Your task to perform on an android device: Open my contact list Image 0: 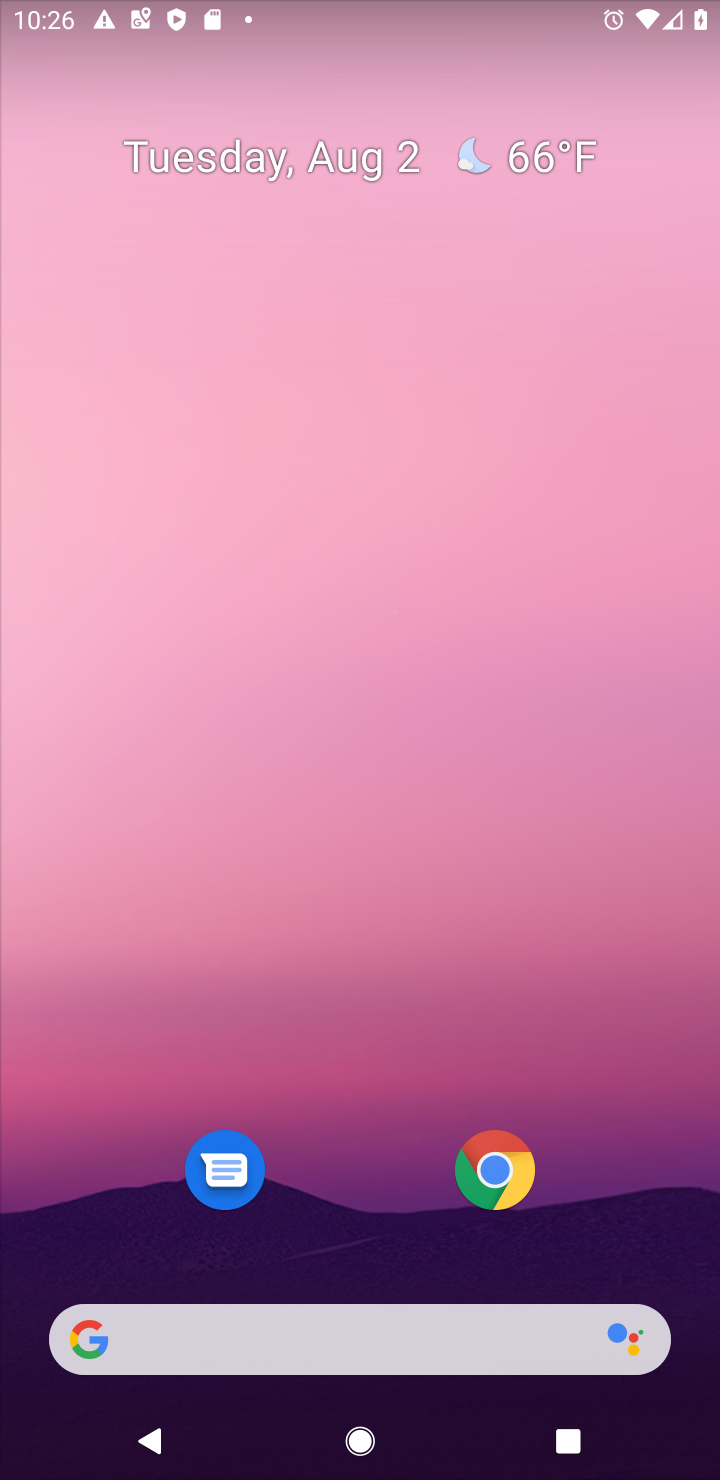
Step 0: drag from (380, 195) to (399, 25)
Your task to perform on an android device: Open my contact list Image 1: 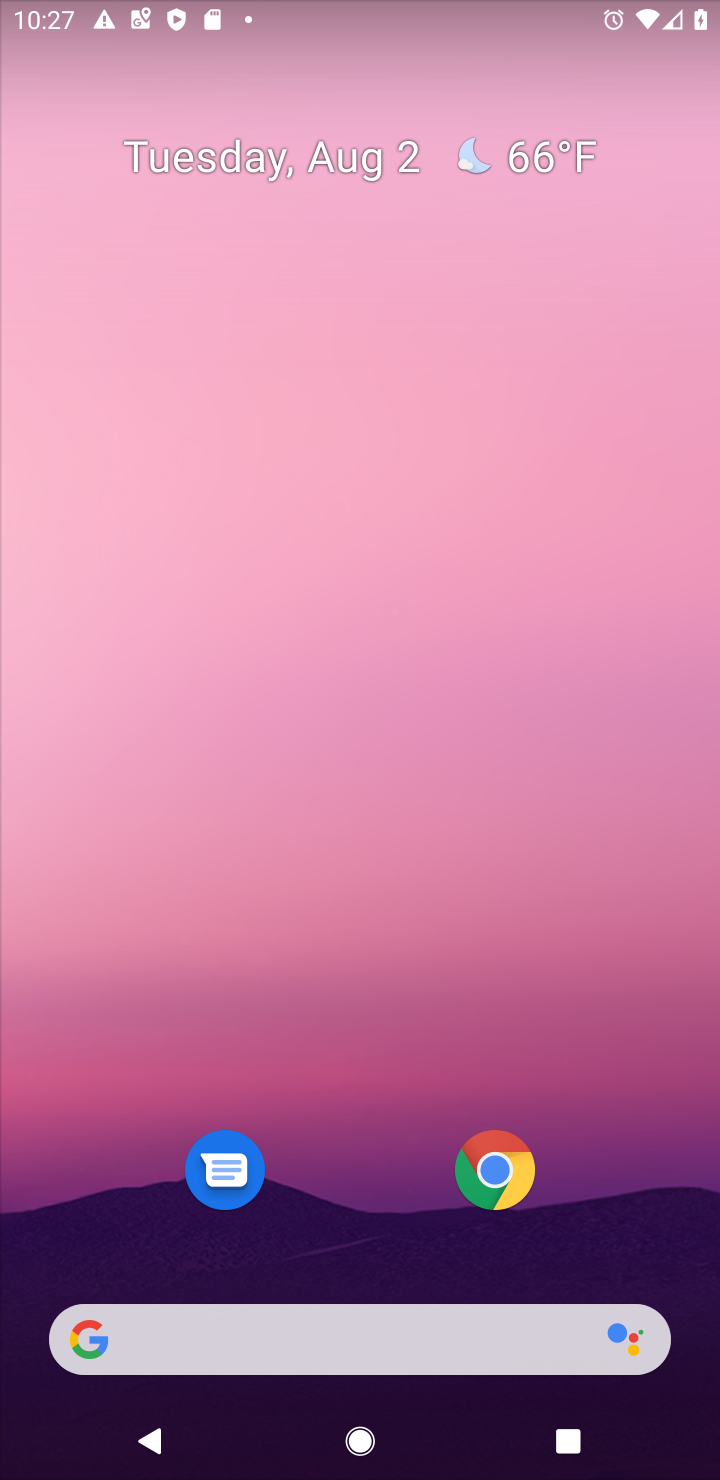
Step 1: drag from (295, 968) to (323, 38)
Your task to perform on an android device: Open my contact list Image 2: 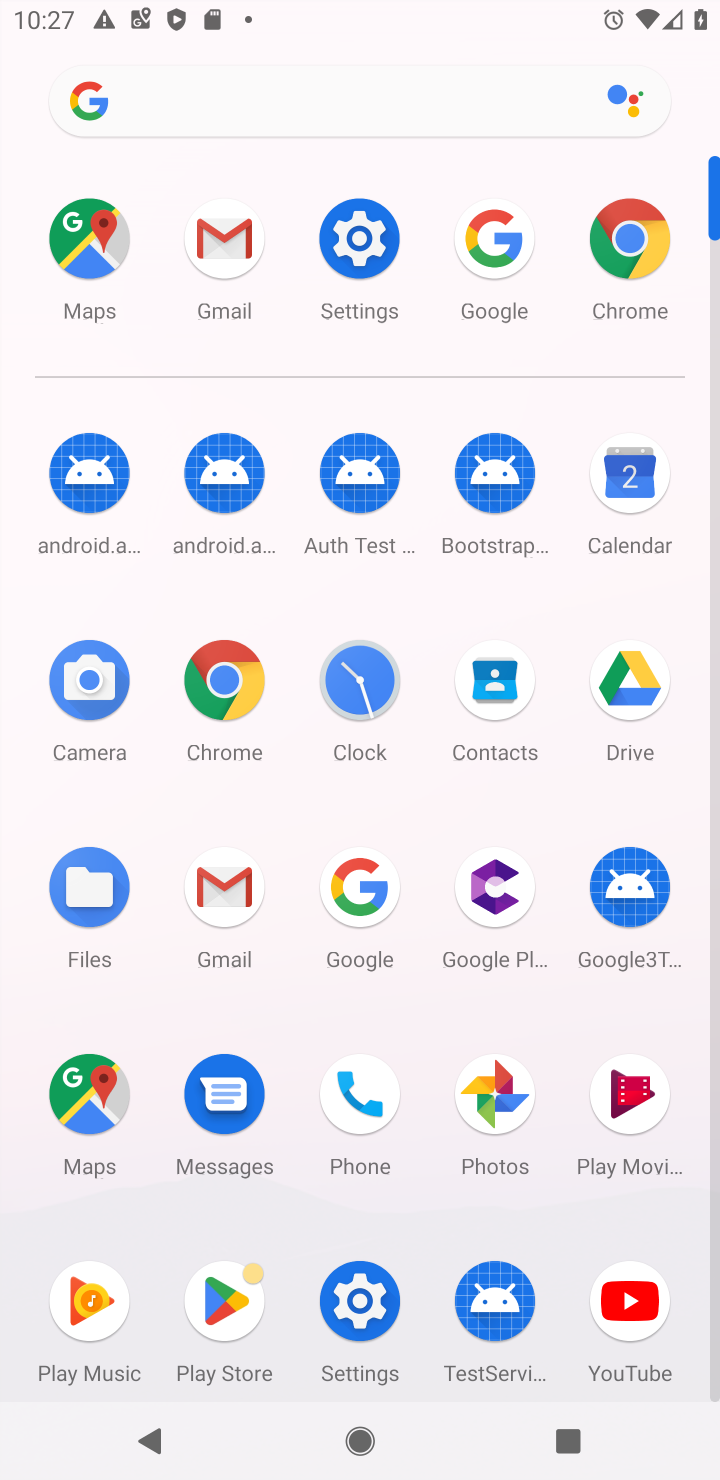
Step 2: click (319, 691)
Your task to perform on an android device: Open my contact list Image 3: 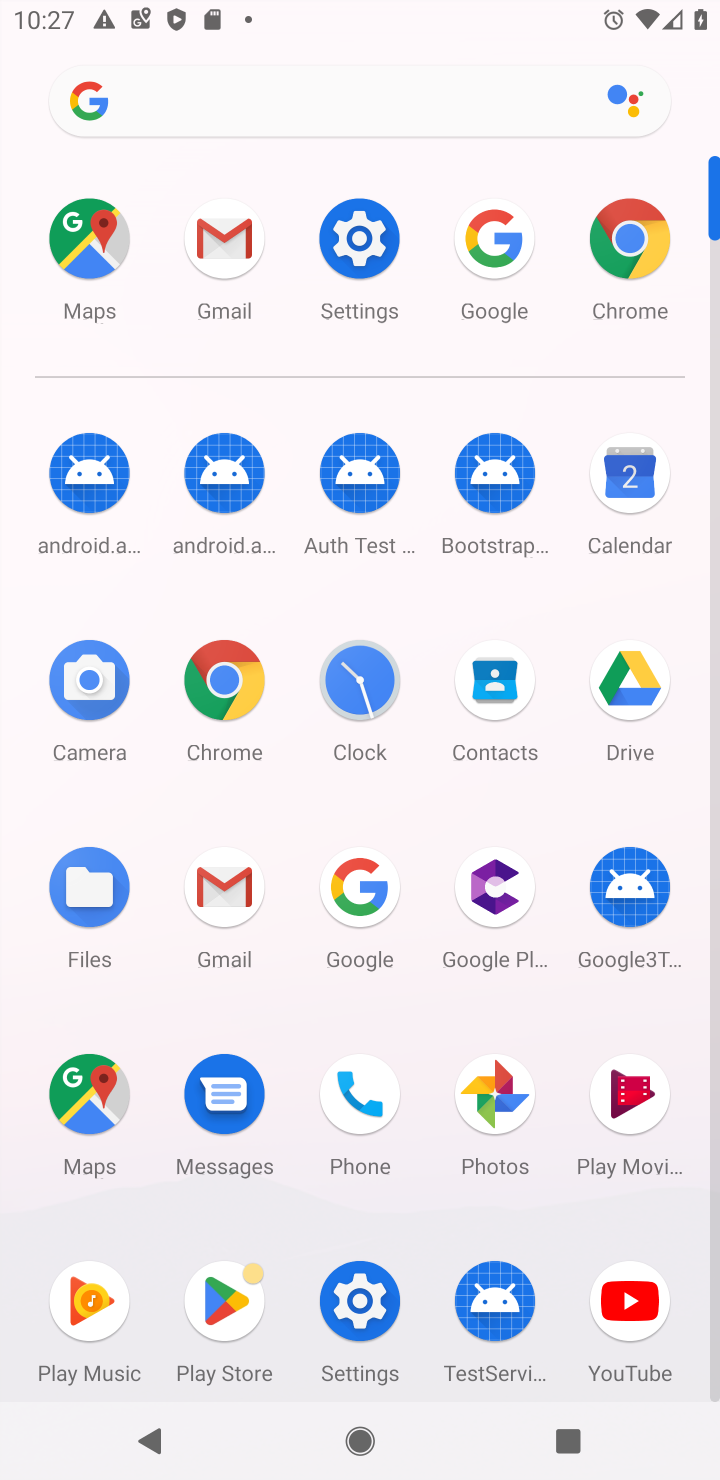
Step 3: click (494, 691)
Your task to perform on an android device: Open my contact list Image 4: 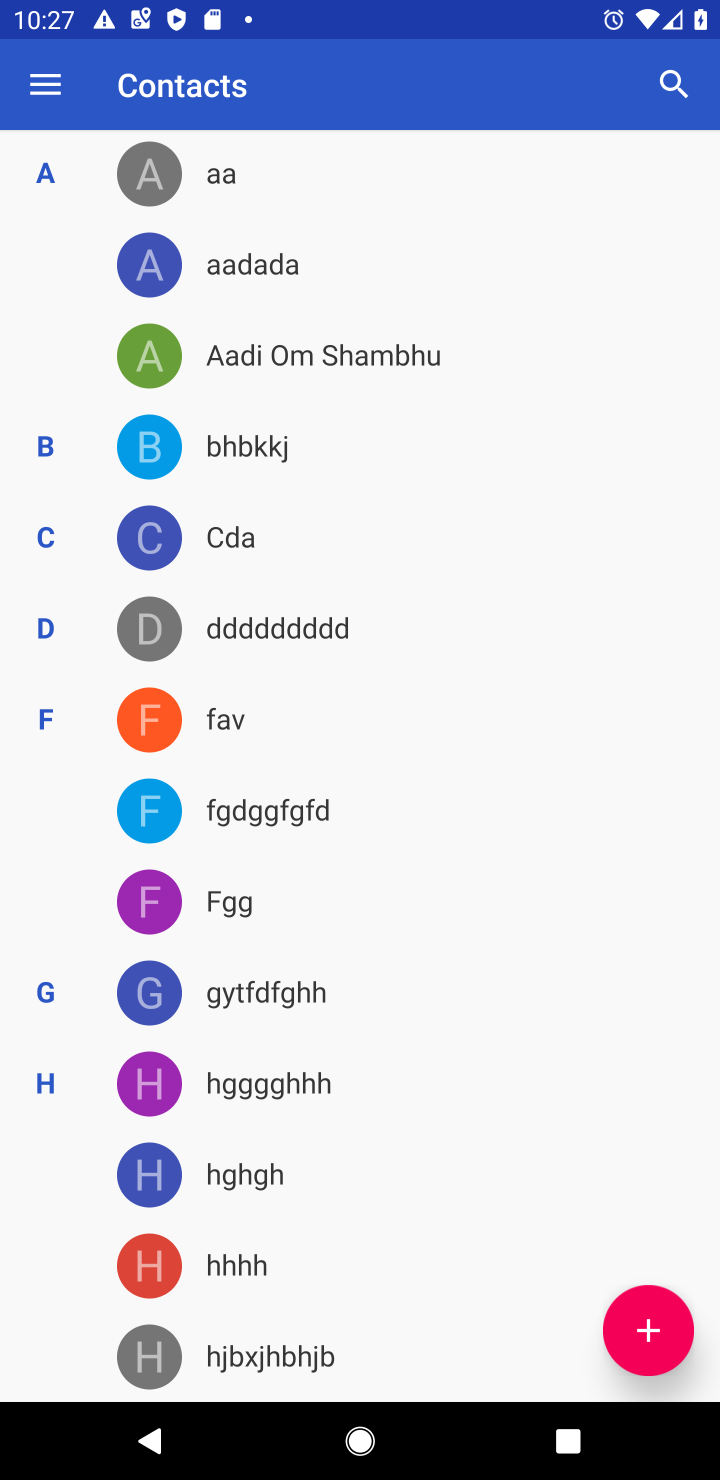
Step 4: task complete